Your task to perform on an android device: Go to internet settings Image 0: 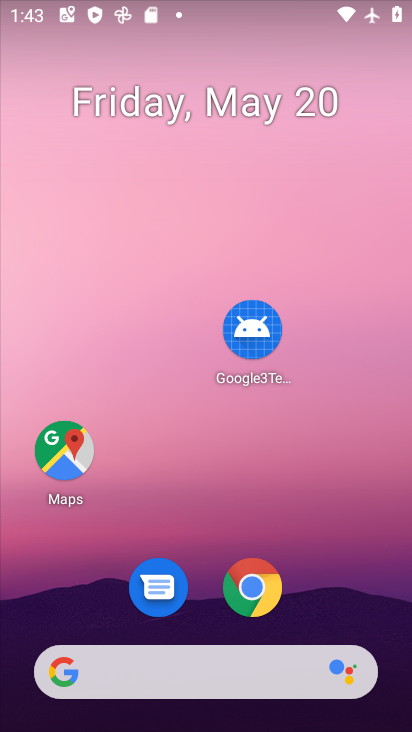
Step 0: drag from (326, 523) to (241, 93)
Your task to perform on an android device: Go to internet settings Image 1: 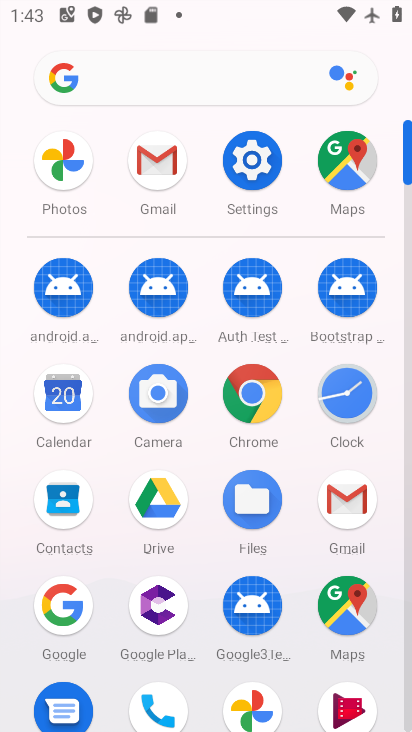
Step 1: click (248, 170)
Your task to perform on an android device: Go to internet settings Image 2: 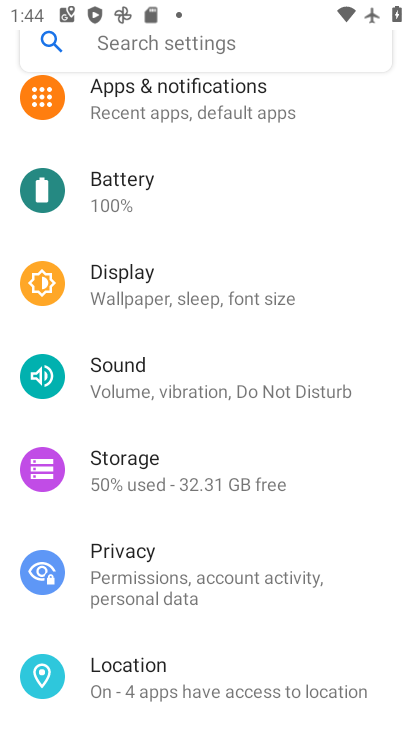
Step 2: drag from (210, 198) to (126, 516)
Your task to perform on an android device: Go to internet settings Image 3: 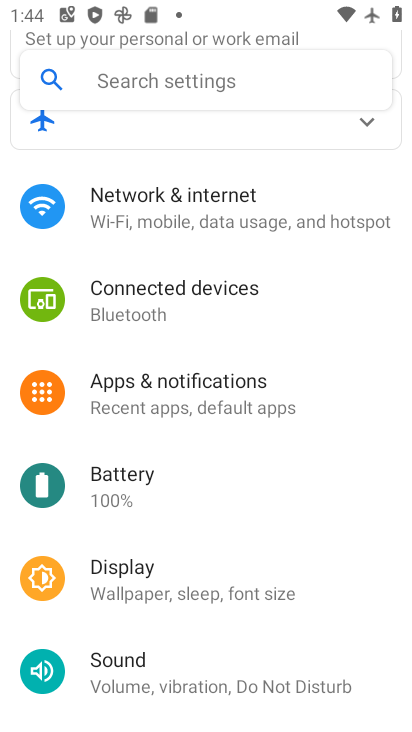
Step 3: click (172, 197)
Your task to perform on an android device: Go to internet settings Image 4: 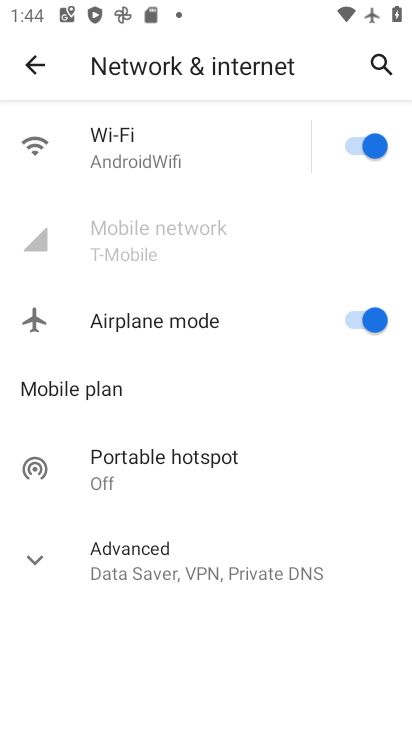
Step 4: task complete